Your task to perform on an android device: change notifications settings Image 0: 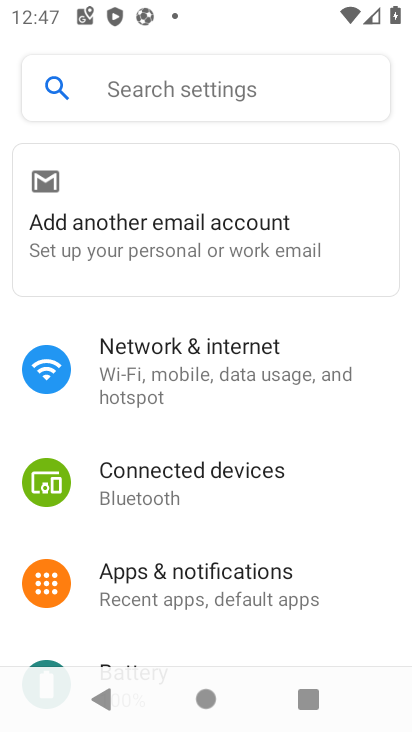
Step 0: click (192, 581)
Your task to perform on an android device: change notifications settings Image 1: 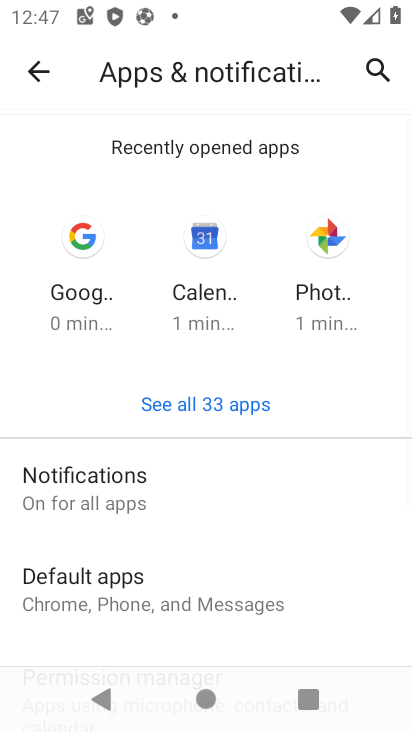
Step 1: click (112, 480)
Your task to perform on an android device: change notifications settings Image 2: 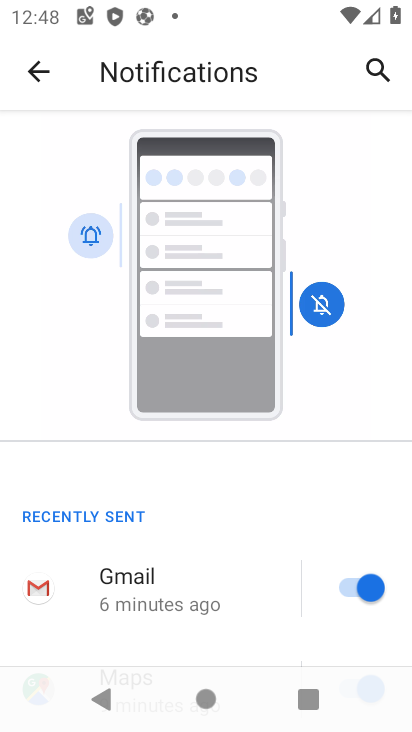
Step 2: drag from (192, 610) to (183, 234)
Your task to perform on an android device: change notifications settings Image 3: 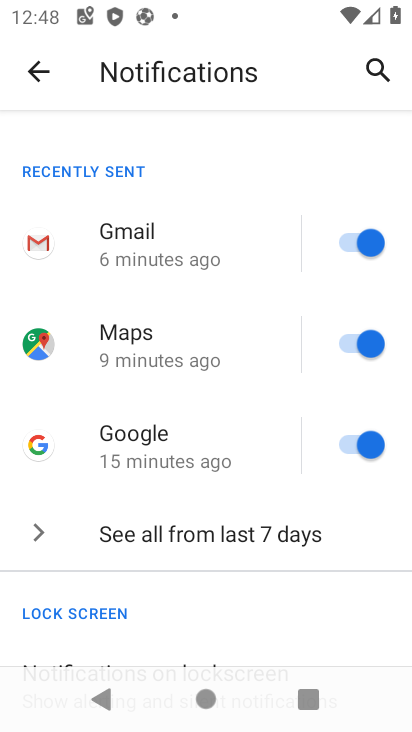
Step 3: click (352, 245)
Your task to perform on an android device: change notifications settings Image 4: 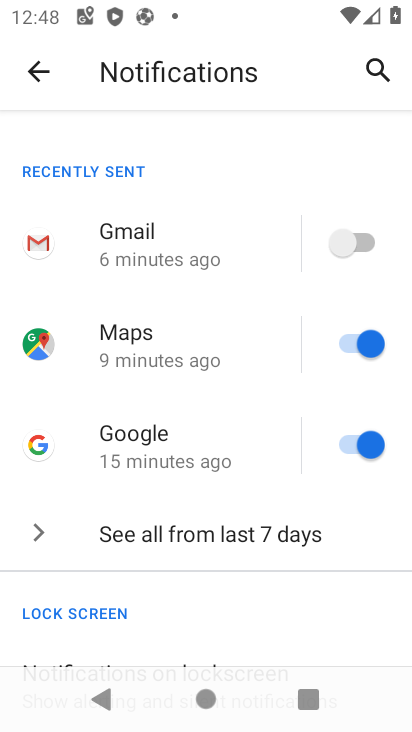
Step 4: click (362, 345)
Your task to perform on an android device: change notifications settings Image 5: 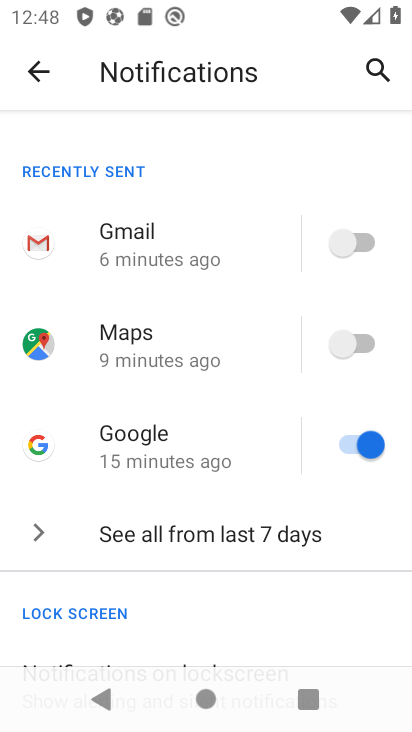
Step 5: click (350, 443)
Your task to perform on an android device: change notifications settings Image 6: 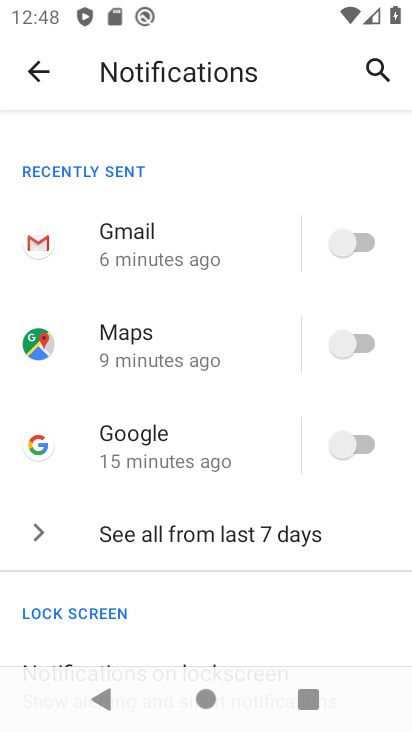
Step 6: click (205, 530)
Your task to perform on an android device: change notifications settings Image 7: 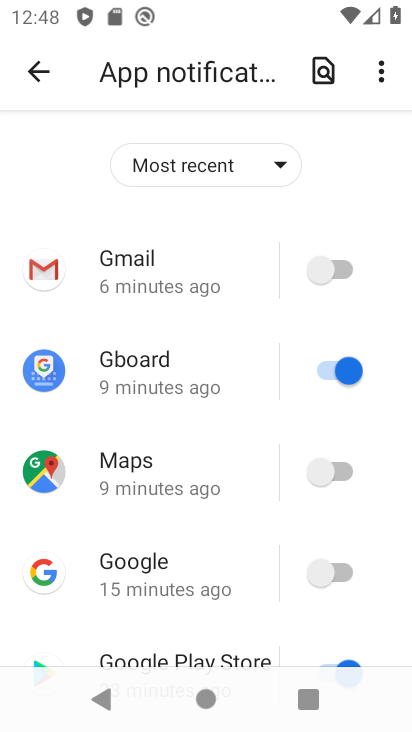
Step 7: click (330, 368)
Your task to perform on an android device: change notifications settings Image 8: 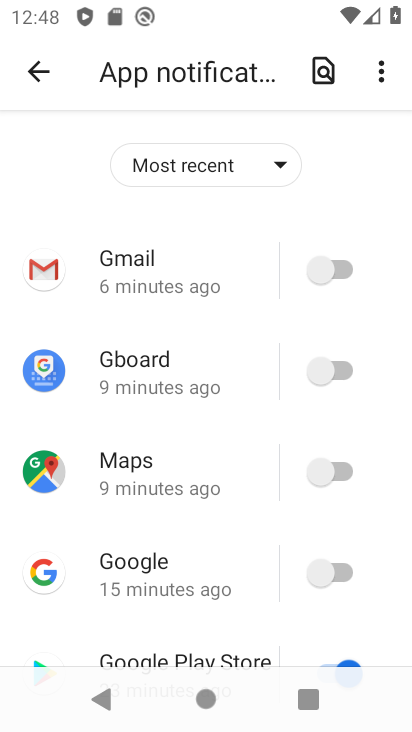
Step 8: drag from (199, 611) to (225, 225)
Your task to perform on an android device: change notifications settings Image 9: 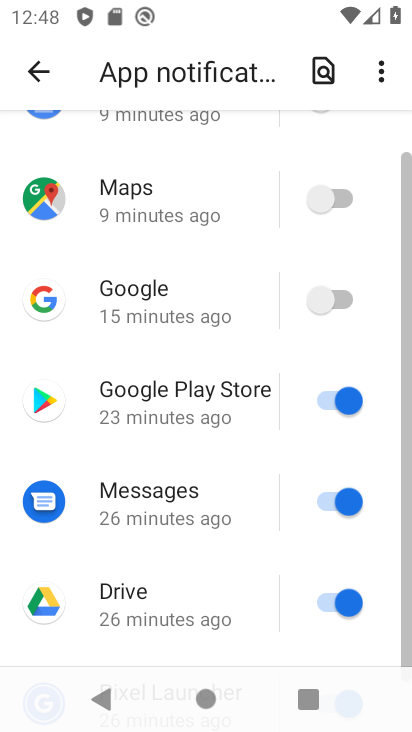
Step 9: click (324, 403)
Your task to perform on an android device: change notifications settings Image 10: 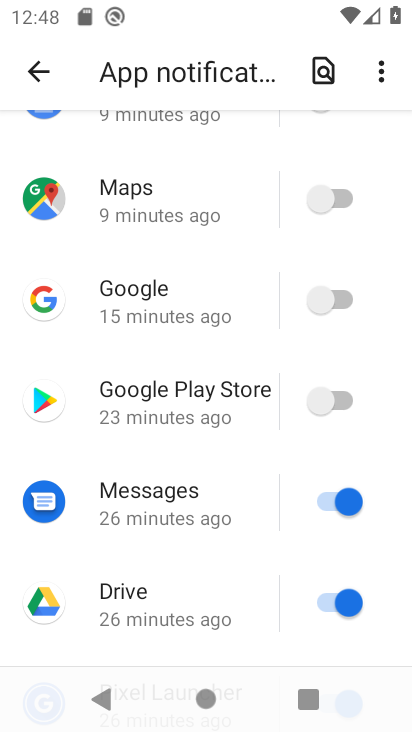
Step 10: click (330, 502)
Your task to perform on an android device: change notifications settings Image 11: 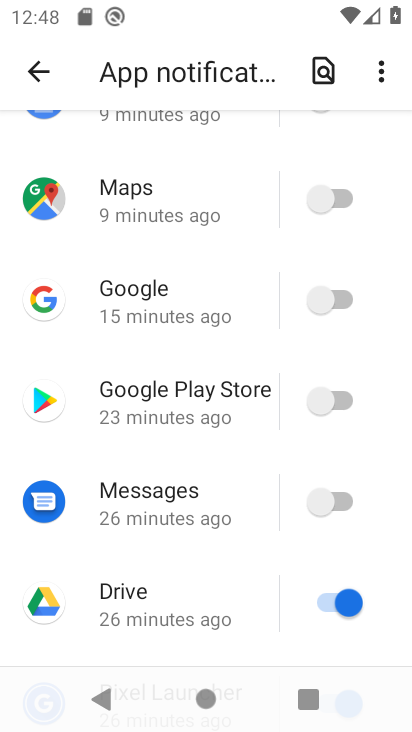
Step 11: click (335, 606)
Your task to perform on an android device: change notifications settings Image 12: 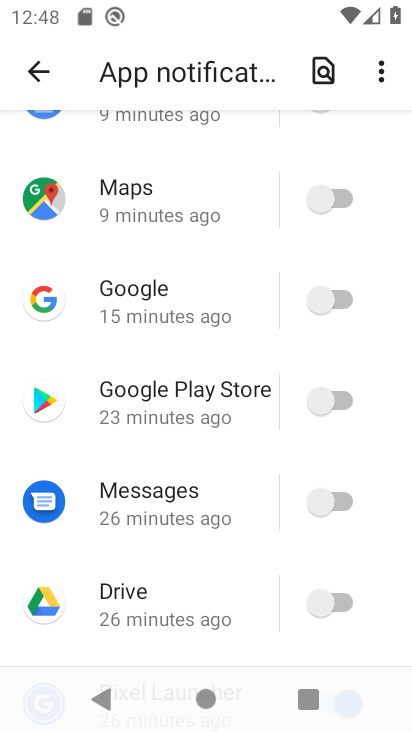
Step 12: drag from (169, 638) to (193, 204)
Your task to perform on an android device: change notifications settings Image 13: 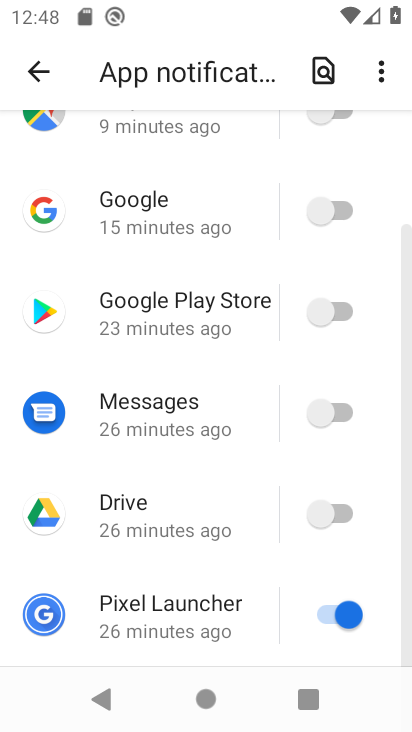
Step 13: click (325, 619)
Your task to perform on an android device: change notifications settings Image 14: 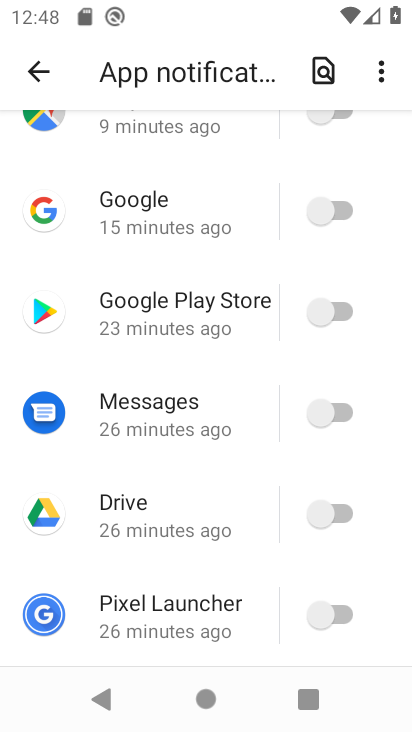
Step 14: task complete